Your task to perform on an android device: open sync settings in chrome Image 0: 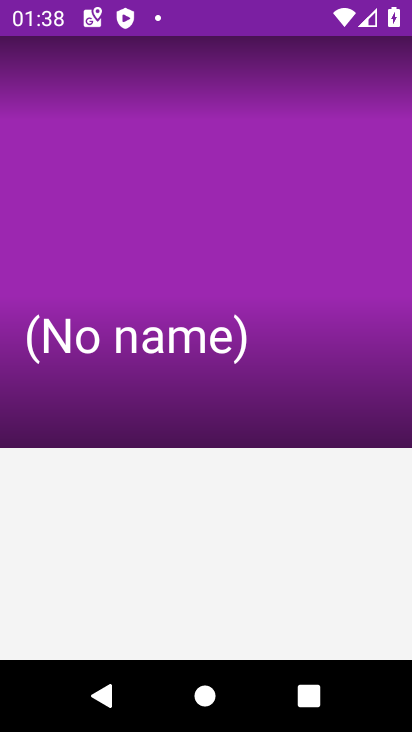
Step 0: drag from (264, 512) to (371, 116)
Your task to perform on an android device: open sync settings in chrome Image 1: 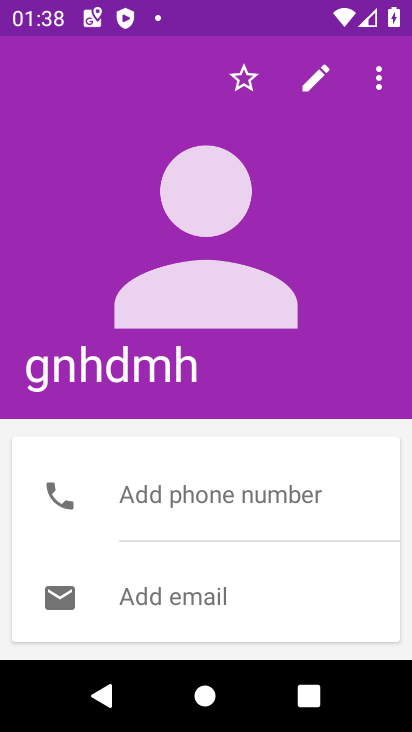
Step 1: press home button
Your task to perform on an android device: open sync settings in chrome Image 2: 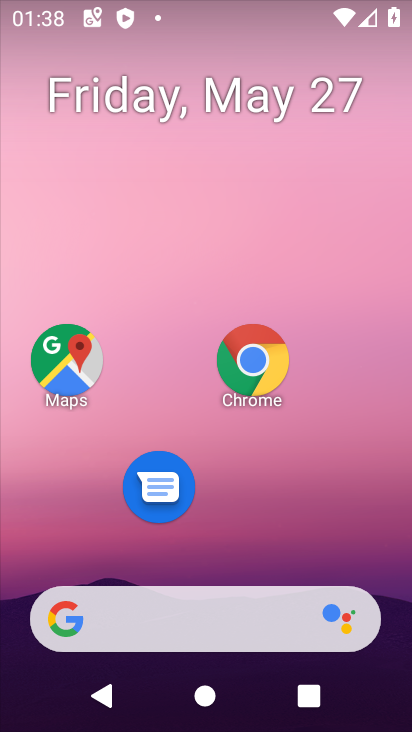
Step 2: click (255, 365)
Your task to perform on an android device: open sync settings in chrome Image 3: 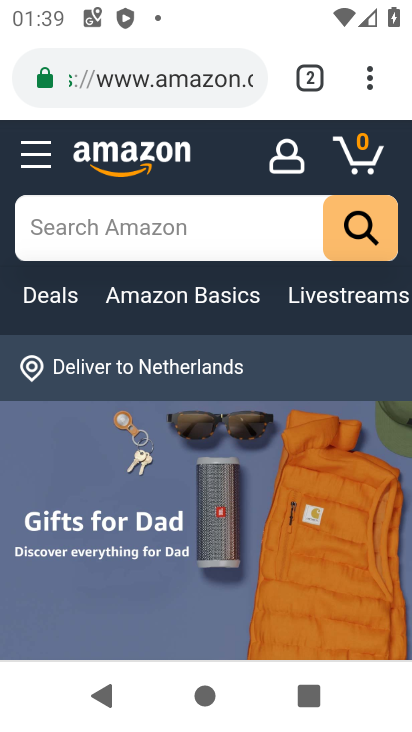
Step 3: click (360, 80)
Your task to perform on an android device: open sync settings in chrome Image 4: 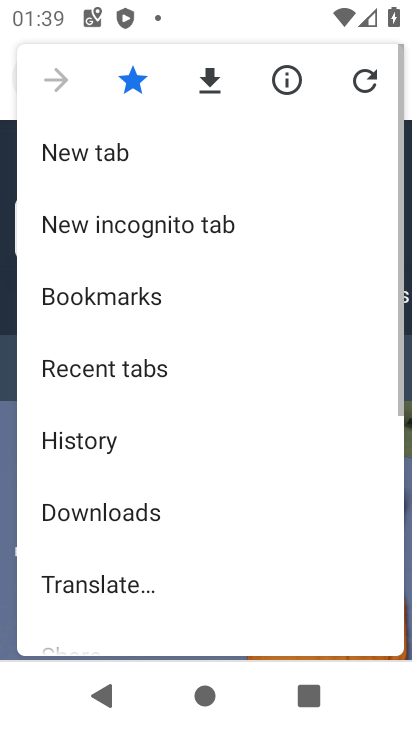
Step 4: drag from (255, 566) to (271, 180)
Your task to perform on an android device: open sync settings in chrome Image 5: 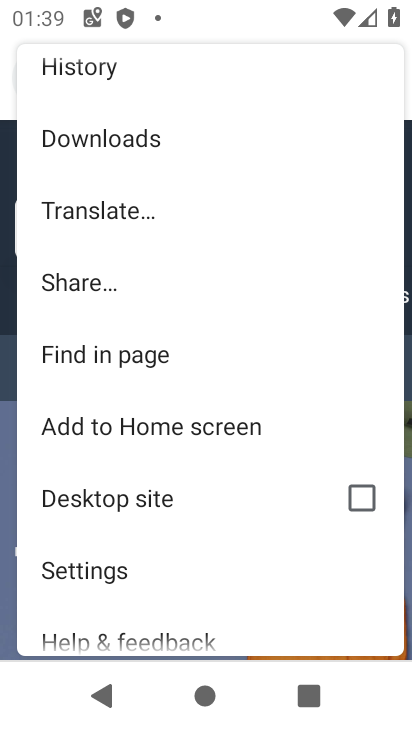
Step 5: click (123, 564)
Your task to perform on an android device: open sync settings in chrome Image 6: 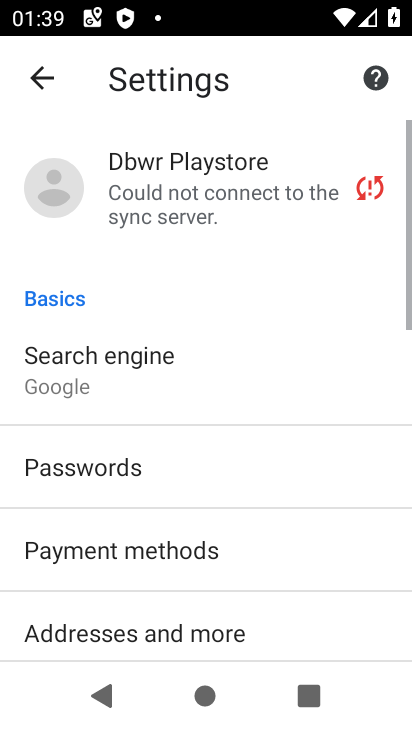
Step 6: drag from (290, 561) to (282, 189)
Your task to perform on an android device: open sync settings in chrome Image 7: 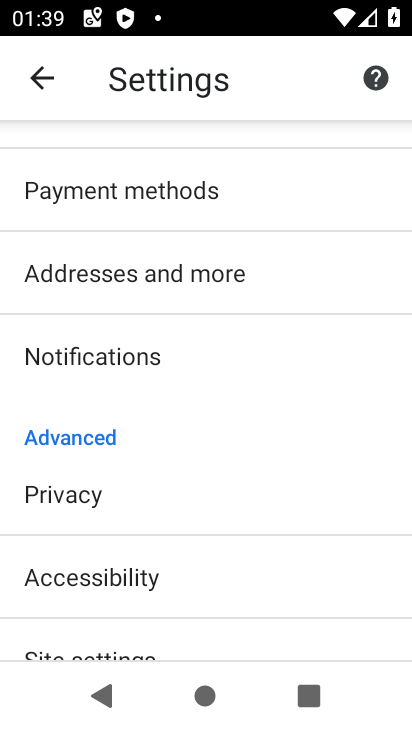
Step 7: drag from (270, 535) to (241, 242)
Your task to perform on an android device: open sync settings in chrome Image 8: 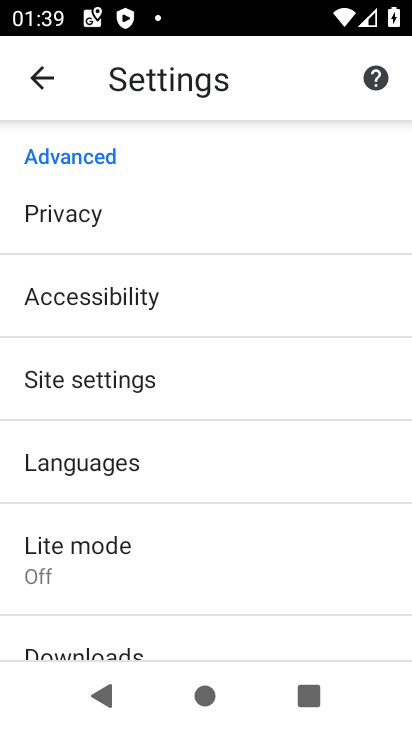
Step 8: click (151, 375)
Your task to perform on an android device: open sync settings in chrome Image 9: 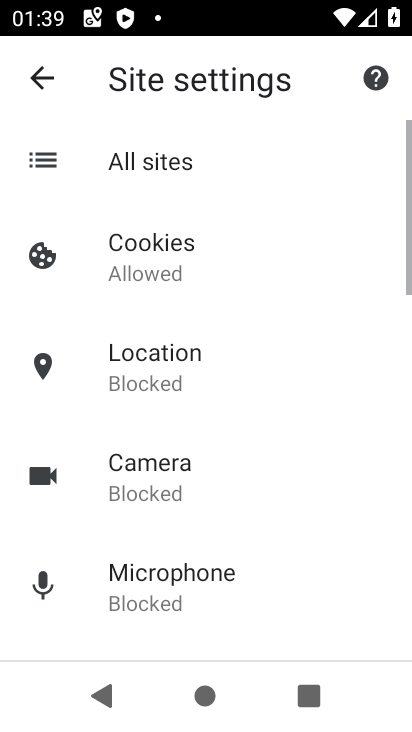
Step 9: drag from (245, 557) to (217, 128)
Your task to perform on an android device: open sync settings in chrome Image 10: 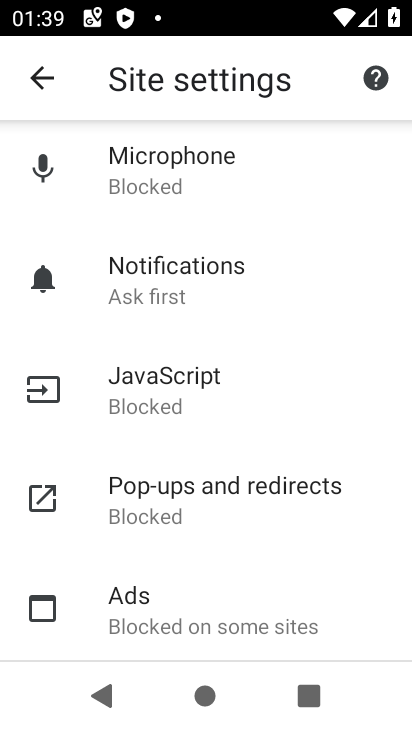
Step 10: drag from (235, 569) to (218, 307)
Your task to perform on an android device: open sync settings in chrome Image 11: 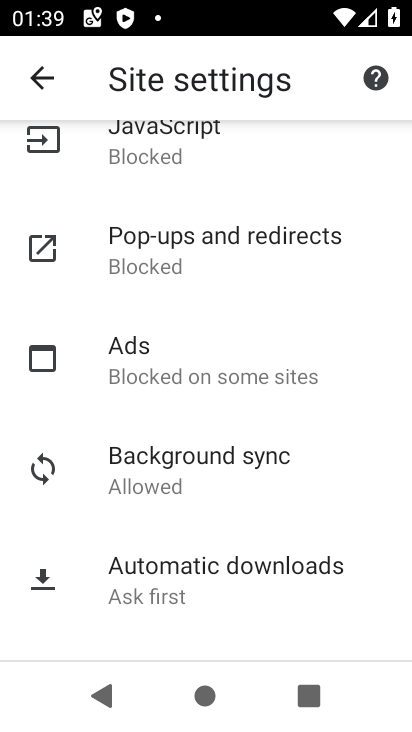
Step 11: click (165, 487)
Your task to perform on an android device: open sync settings in chrome Image 12: 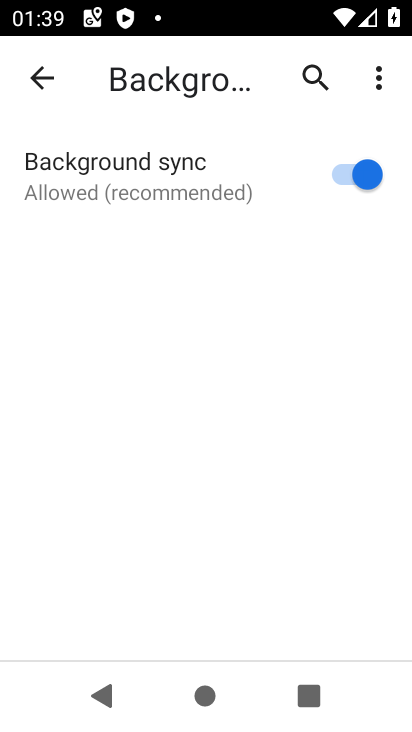
Step 12: task complete